Your task to perform on an android device: Check the news Image 0: 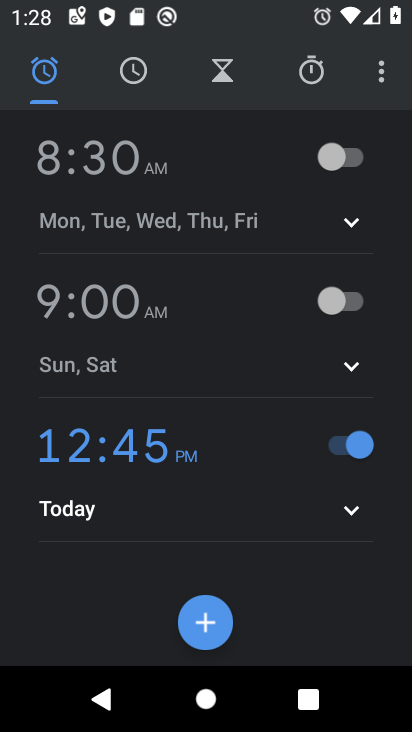
Step 0: press home button
Your task to perform on an android device: Check the news Image 1: 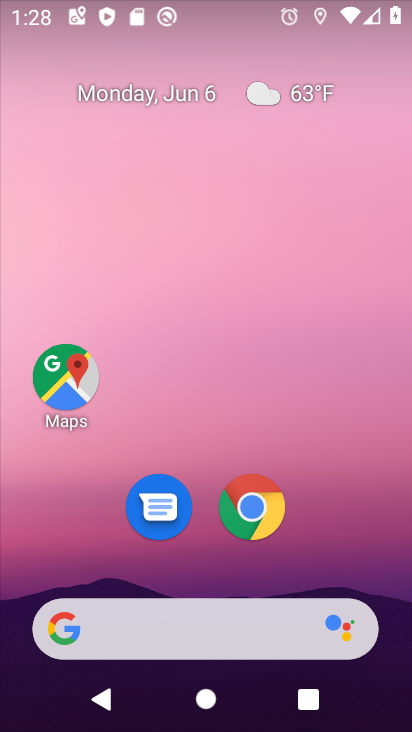
Step 1: click (234, 629)
Your task to perform on an android device: Check the news Image 2: 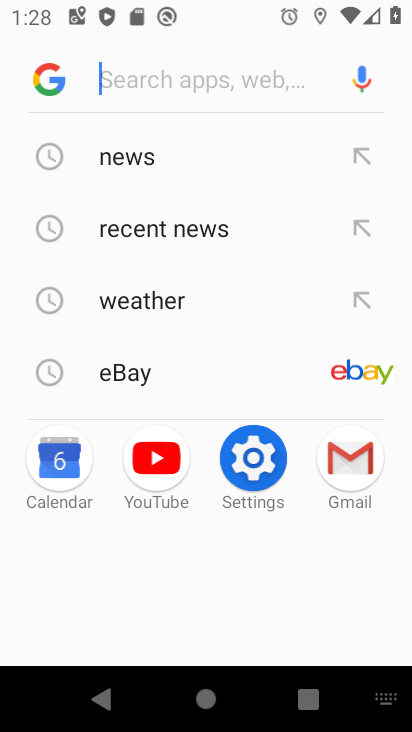
Step 2: click (124, 152)
Your task to perform on an android device: Check the news Image 3: 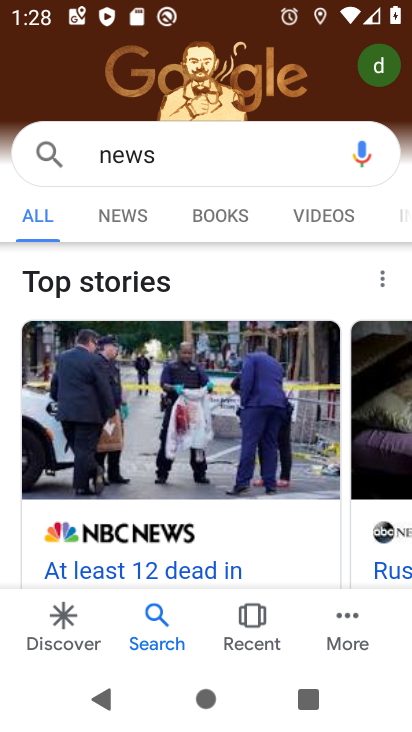
Step 3: click (130, 209)
Your task to perform on an android device: Check the news Image 4: 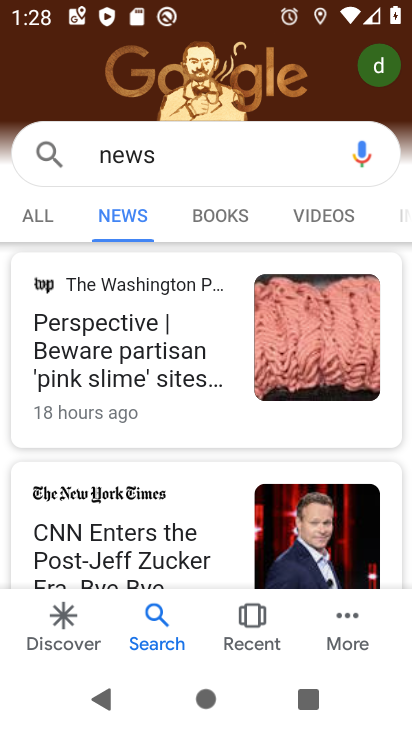
Step 4: task complete